Your task to perform on an android device: install app "Spotify: Music and Podcasts" Image 0: 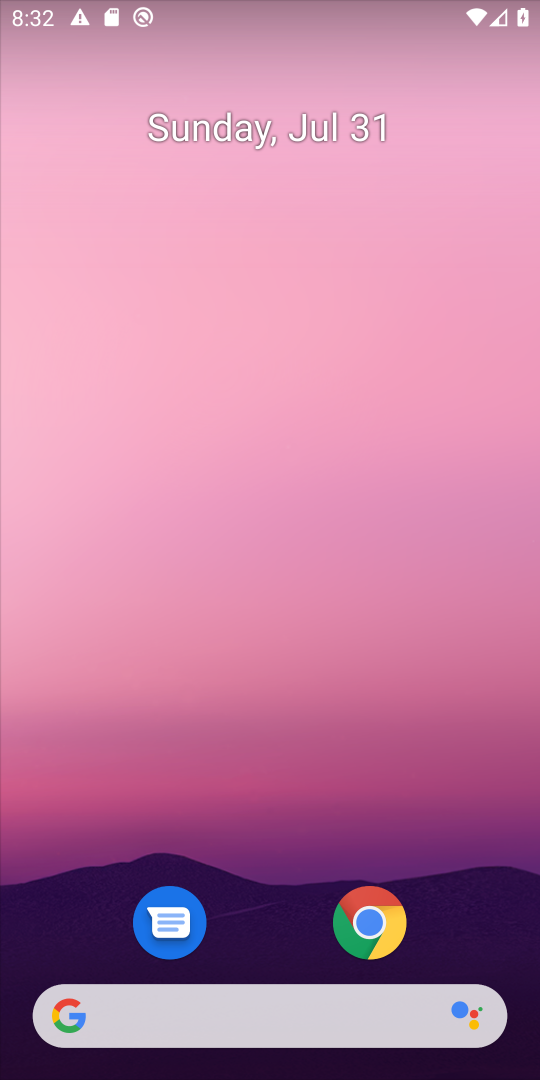
Step 0: drag from (302, 1056) to (359, 170)
Your task to perform on an android device: install app "Spotify: Music and Podcasts" Image 1: 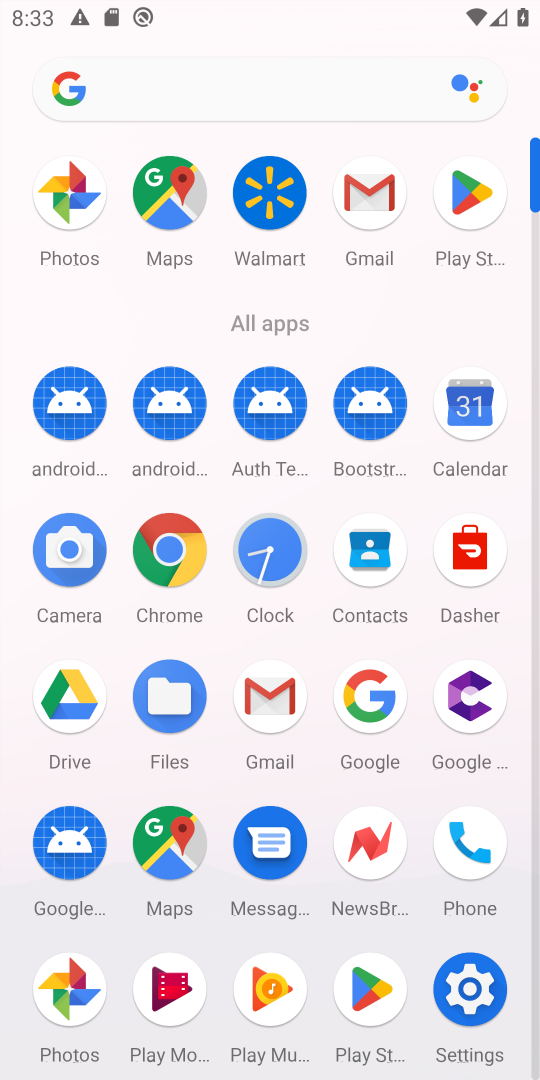
Step 1: click (361, 996)
Your task to perform on an android device: install app "Spotify: Music and Podcasts" Image 2: 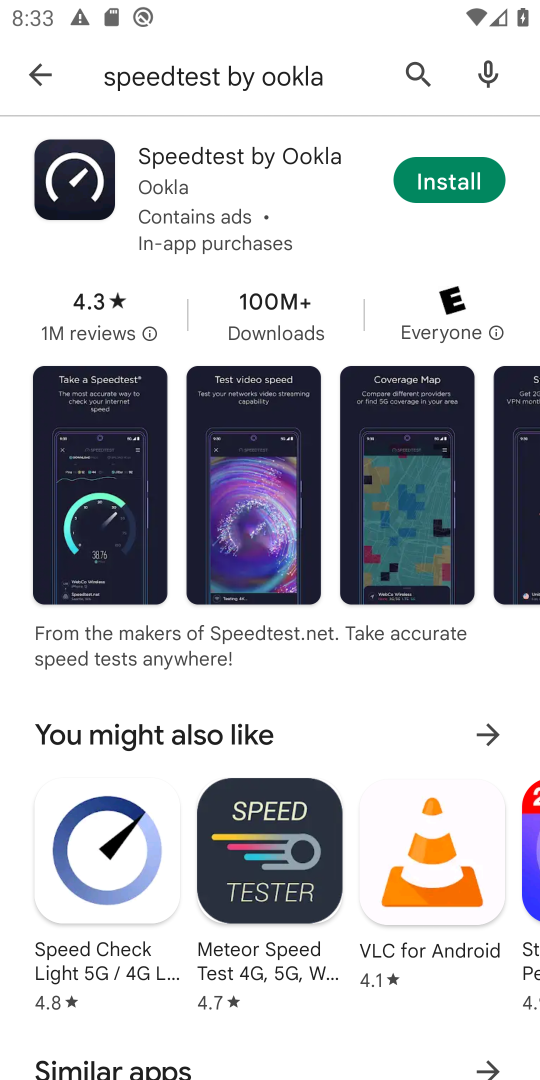
Step 2: click (413, 72)
Your task to perform on an android device: install app "Spotify: Music and Podcasts" Image 3: 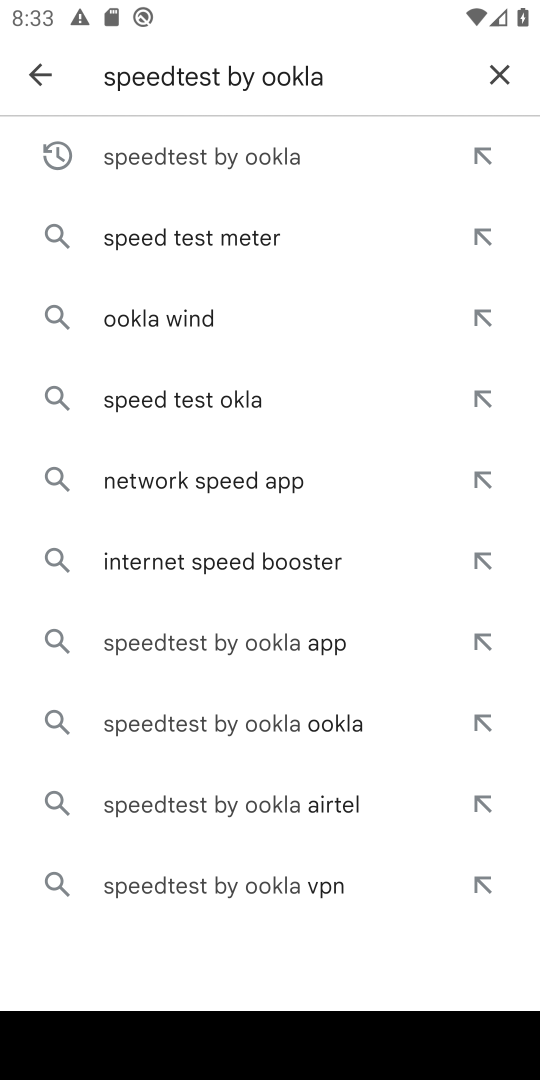
Step 3: click (490, 70)
Your task to perform on an android device: install app "Spotify: Music and Podcasts" Image 4: 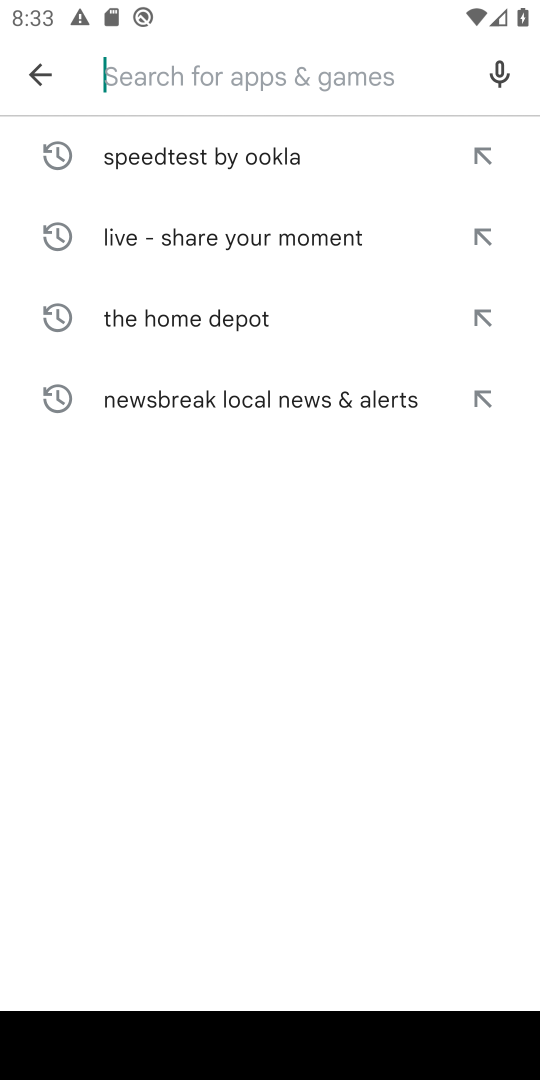
Step 4: type "Spotify: Music and Podcasts"
Your task to perform on an android device: install app "Spotify: Music and Podcasts" Image 5: 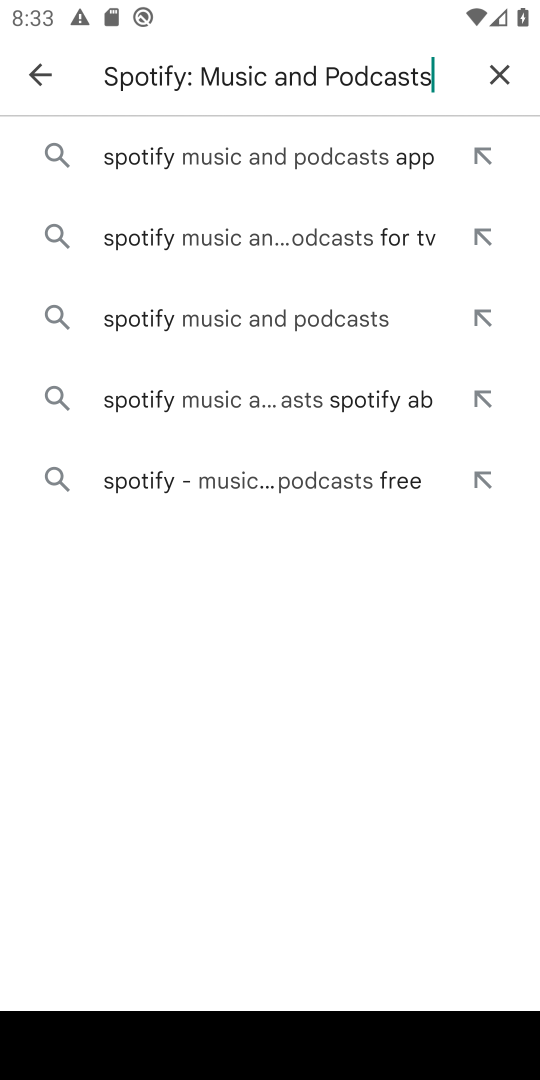
Step 5: click (289, 159)
Your task to perform on an android device: install app "Spotify: Music and Podcasts" Image 6: 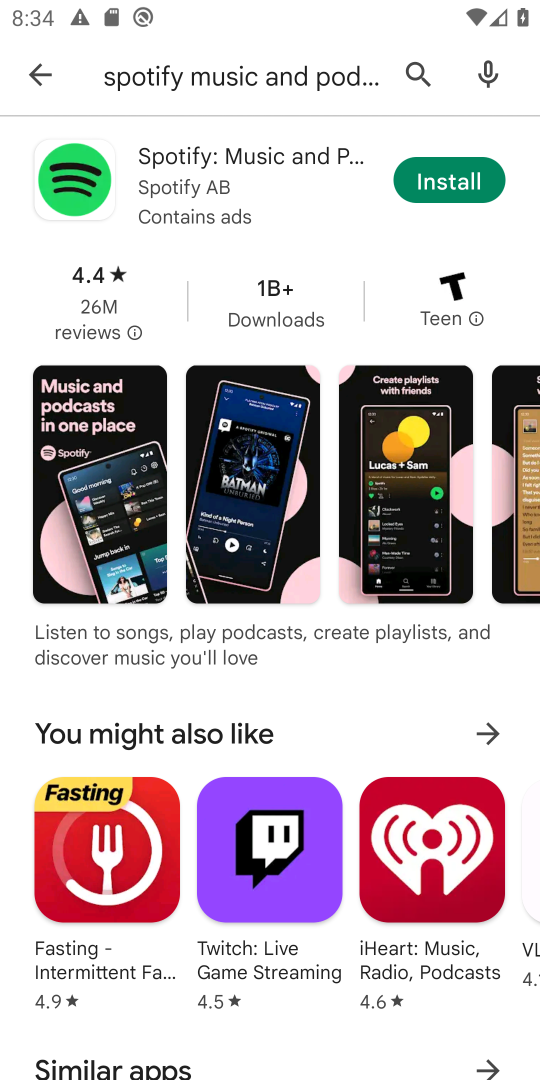
Step 6: click (458, 182)
Your task to perform on an android device: install app "Spotify: Music and Podcasts" Image 7: 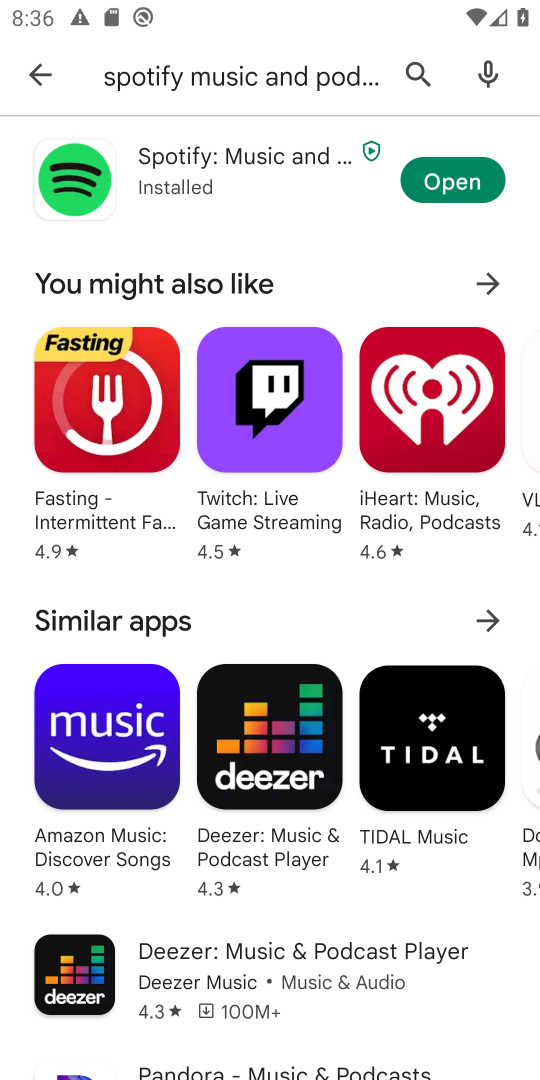
Step 7: task complete